Your task to perform on an android device: open app "Facebook Lite" (install if not already installed) and enter user name: "suppers@inbox.com" and password: "downplayed" Image 0: 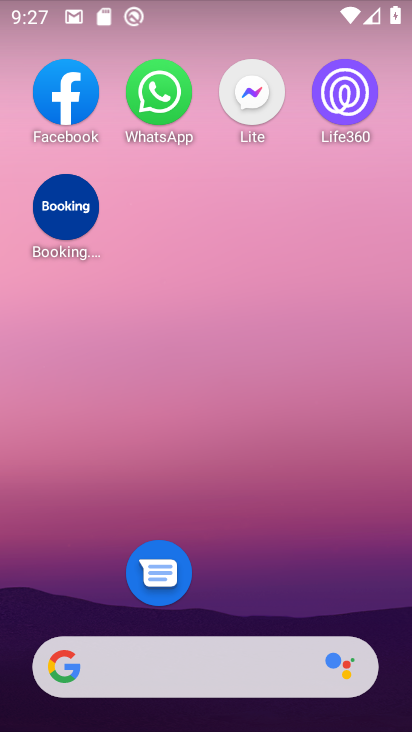
Step 0: drag from (259, 585) to (261, 361)
Your task to perform on an android device: open app "Facebook Lite" (install if not already installed) and enter user name: "suppers@inbox.com" and password: "downplayed" Image 1: 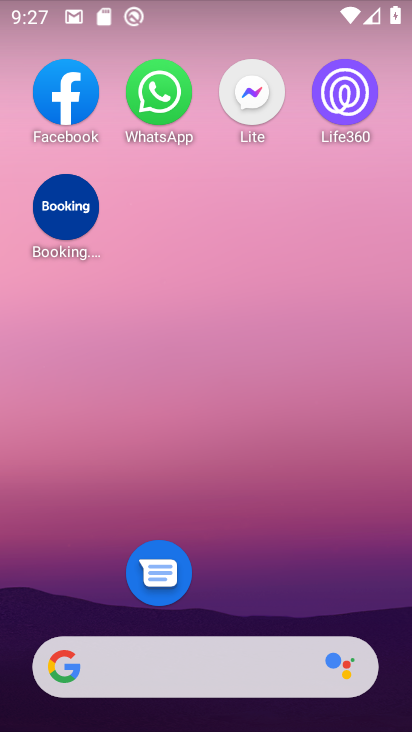
Step 1: drag from (288, 672) to (217, 18)
Your task to perform on an android device: open app "Facebook Lite" (install if not already installed) and enter user name: "suppers@inbox.com" and password: "downplayed" Image 2: 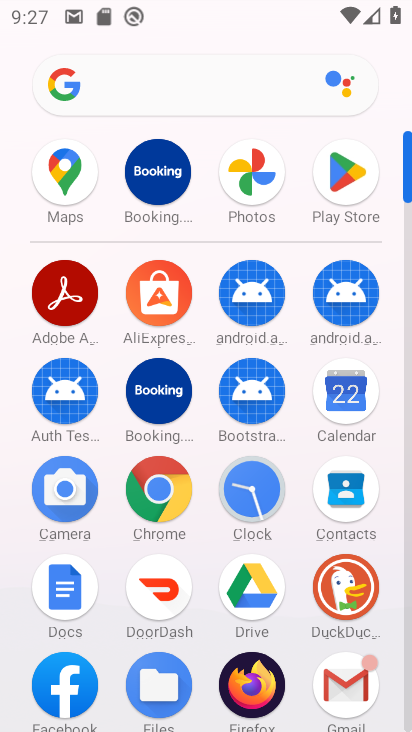
Step 2: click (330, 194)
Your task to perform on an android device: open app "Facebook Lite" (install if not already installed) and enter user name: "suppers@inbox.com" and password: "downplayed" Image 3: 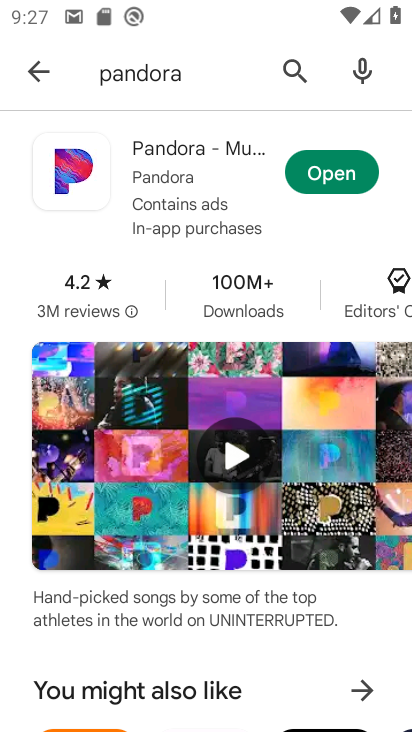
Step 3: click (203, 64)
Your task to perform on an android device: open app "Facebook Lite" (install if not already installed) and enter user name: "suppers@inbox.com" and password: "downplayed" Image 4: 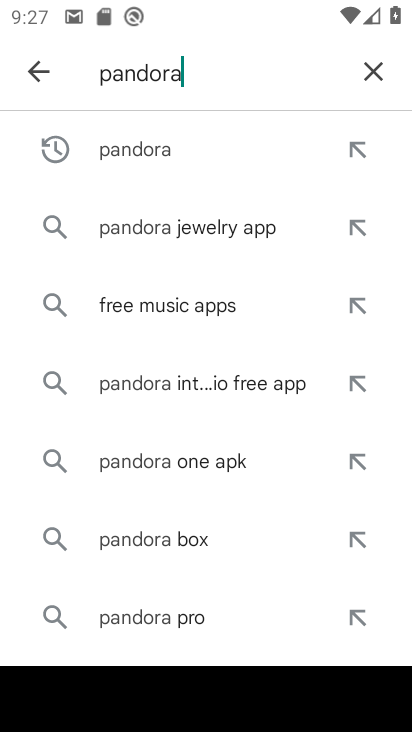
Step 4: click (369, 69)
Your task to perform on an android device: open app "Facebook Lite" (install if not already installed) and enter user name: "suppers@inbox.com" and password: "downplayed" Image 5: 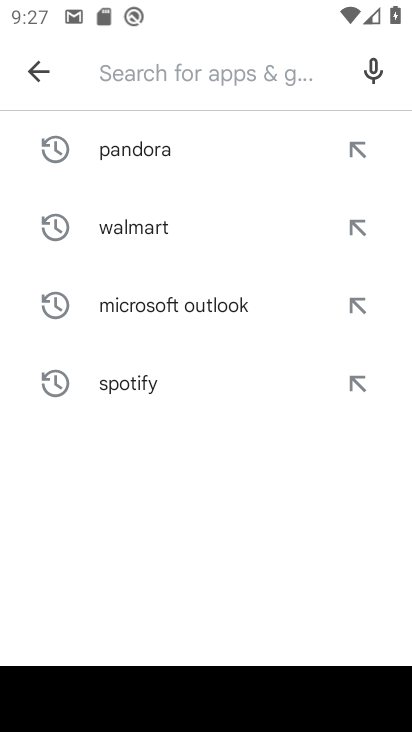
Step 5: type "facebook lite"
Your task to perform on an android device: open app "Facebook Lite" (install if not already installed) and enter user name: "suppers@inbox.com" and password: "downplayed" Image 6: 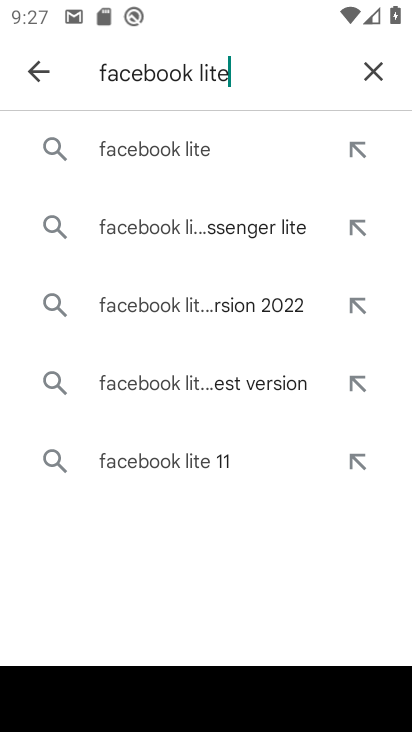
Step 6: click (140, 126)
Your task to perform on an android device: open app "Facebook Lite" (install if not already installed) and enter user name: "suppers@inbox.com" and password: "downplayed" Image 7: 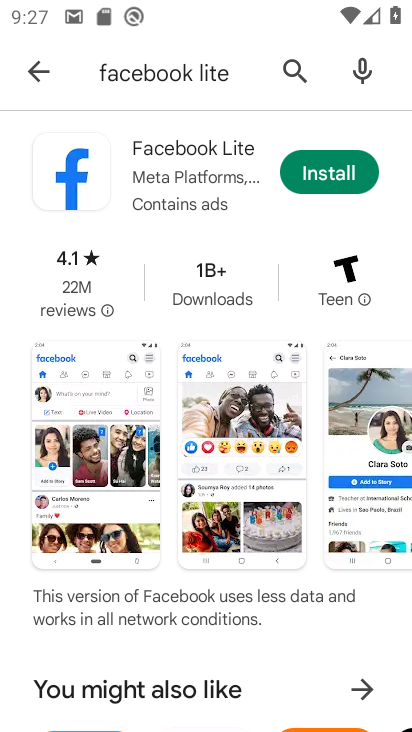
Step 7: click (285, 132)
Your task to perform on an android device: open app "Facebook Lite" (install if not already installed) and enter user name: "suppers@inbox.com" and password: "downplayed" Image 8: 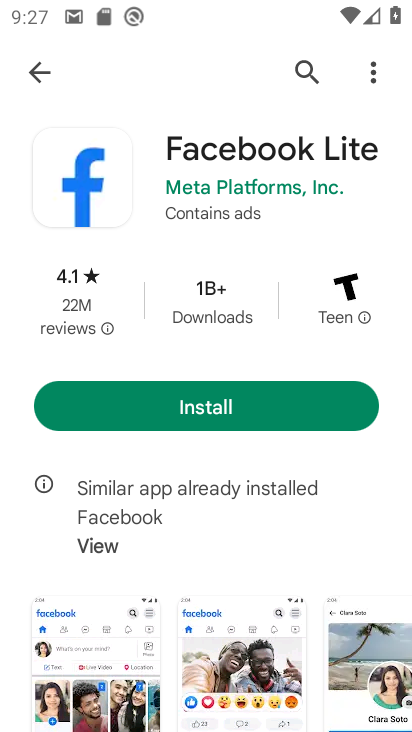
Step 8: click (290, 393)
Your task to perform on an android device: open app "Facebook Lite" (install if not already installed) and enter user name: "suppers@inbox.com" and password: "downplayed" Image 9: 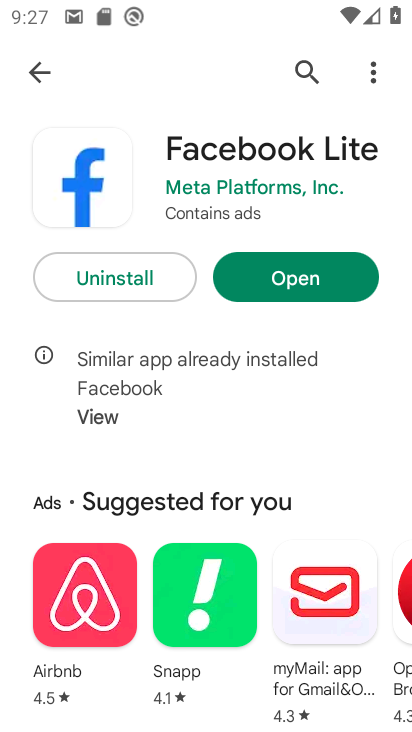
Step 9: click (296, 291)
Your task to perform on an android device: open app "Facebook Lite" (install if not already installed) and enter user name: "suppers@inbox.com" and password: "downplayed" Image 10: 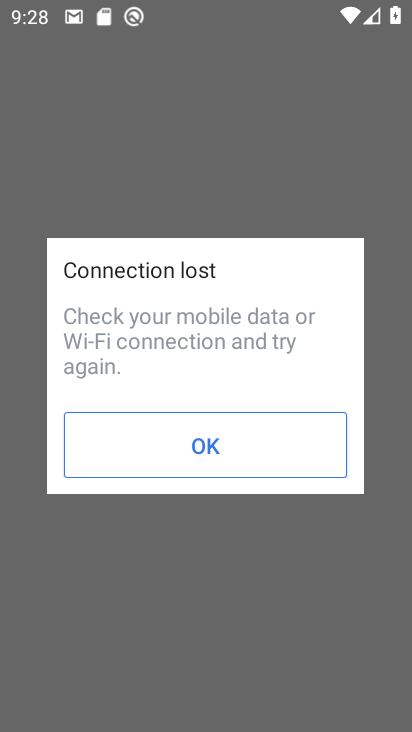
Step 10: click (216, 435)
Your task to perform on an android device: open app "Facebook Lite" (install if not already installed) and enter user name: "suppers@inbox.com" and password: "downplayed" Image 11: 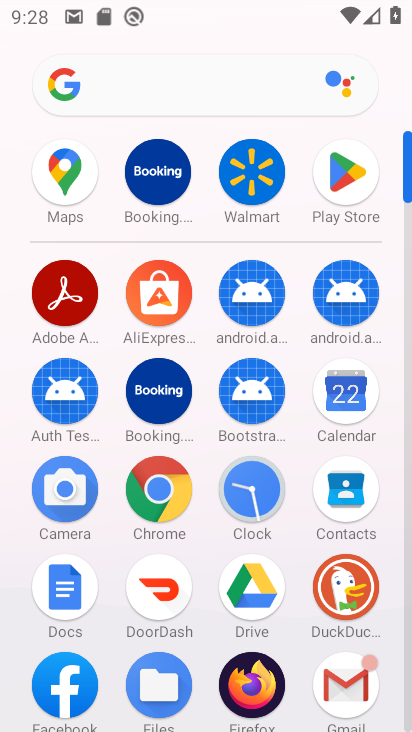
Step 11: task complete